Your task to perform on an android device: turn off improve location accuracy Image 0: 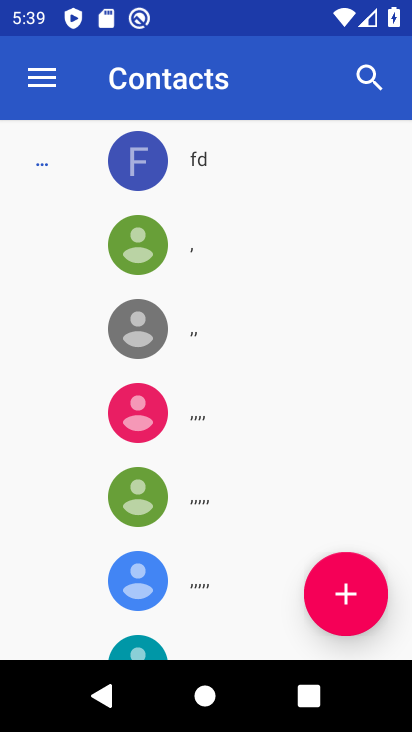
Step 0: press home button
Your task to perform on an android device: turn off improve location accuracy Image 1: 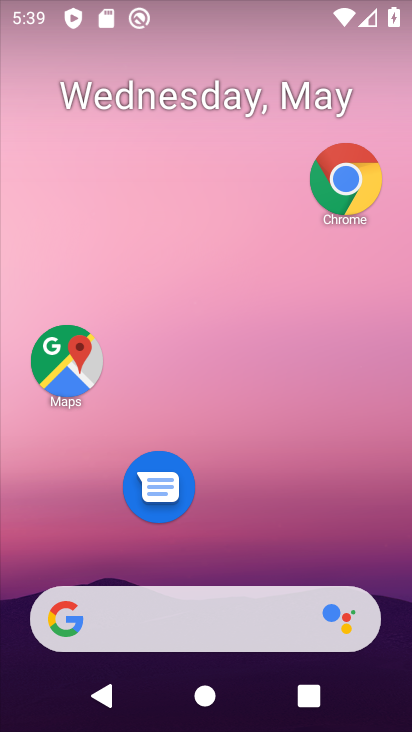
Step 1: drag from (199, 524) to (199, 88)
Your task to perform on an android device: turn off improve location accuracy Image 2: 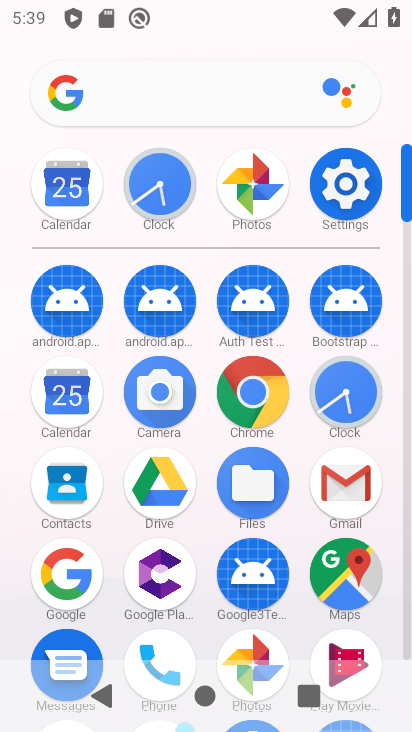
Step 2: click (355, 211)
Your task to perform on an android device: turn off improve location accuracy Image 3: 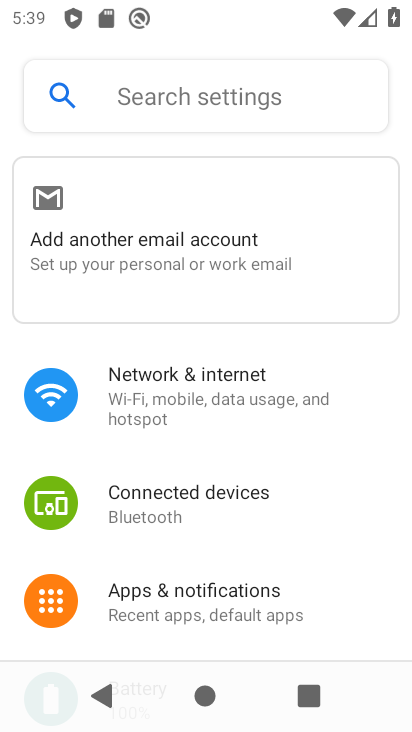
Step 3: drag from (194, 573) to (188, 15)
Your task to perform on an android device: turn off improve location accuracy Image 4: 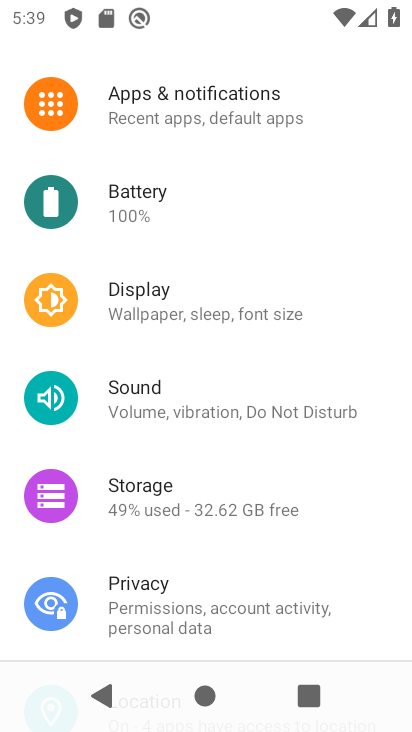
Step 4: drag from (137, 532) to (130, 160)
Your task to perform on an android device: turn off improve location accuracy Image 5: 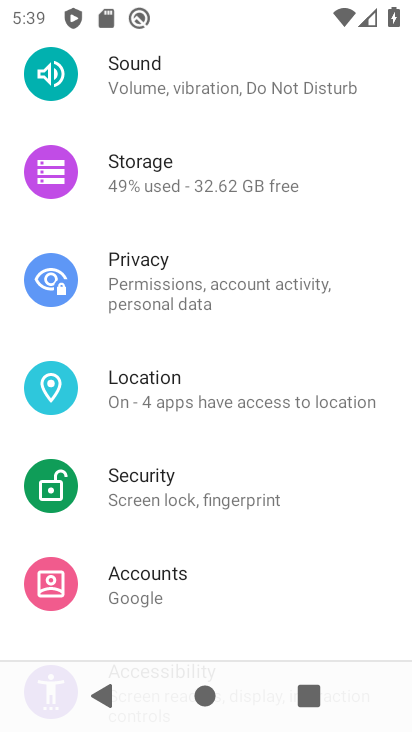
Step 5: click (140, 387)
Your task to perform on an android device: turn off improve location accuracy Image 6: 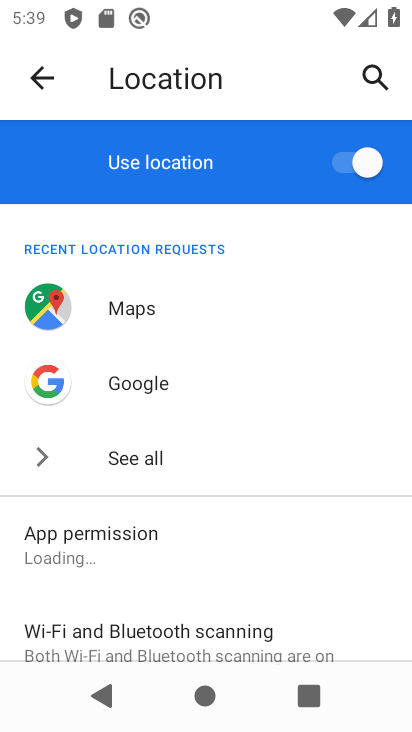
Step 6: drag from (108, 579) to (117, 255)
Your task to perform on an android device: turn off improve location accuracy Image 7: 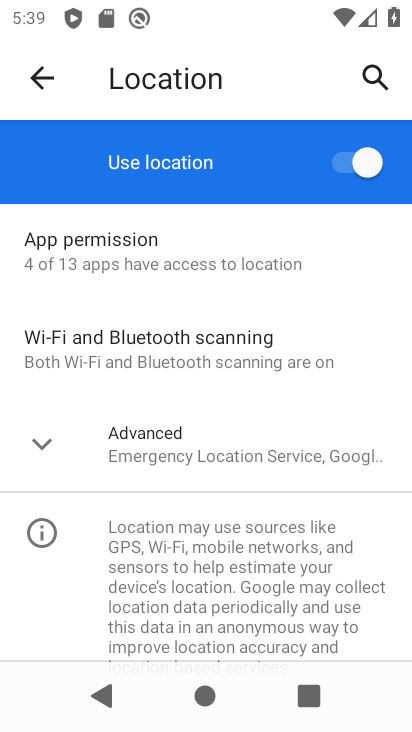
Step 7: click (121, 438)
Your task to perform on an android device: turn off improve location accuracy Image 8: 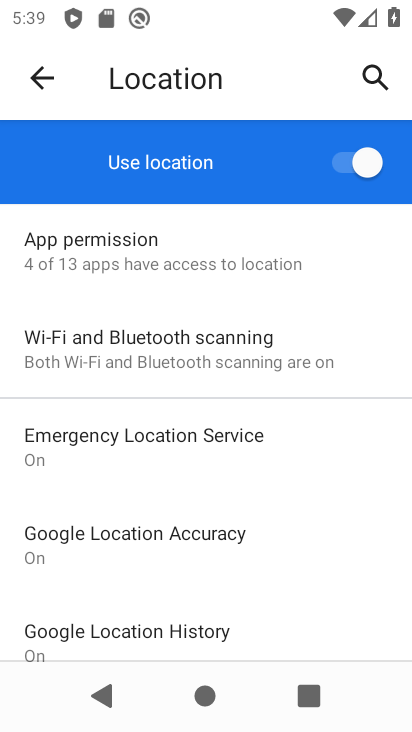
Step 8: click (120, 540)
Your task to perform on an android device: turn off improve location accuracy Image 9: 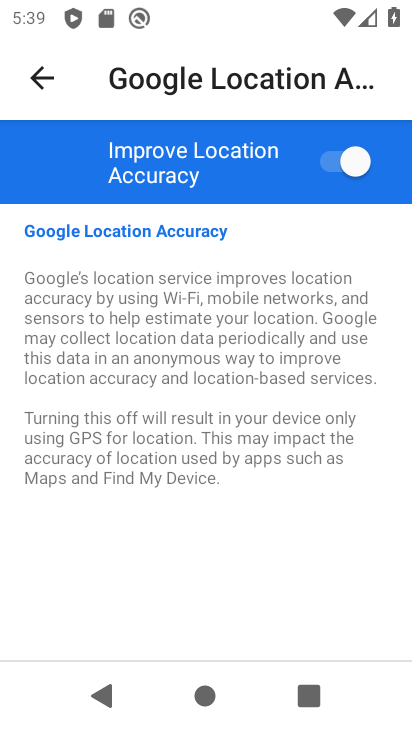
Step 9: click (330, 161)
Your task to perform on an android device: turn off improve location accuracy Image 10: 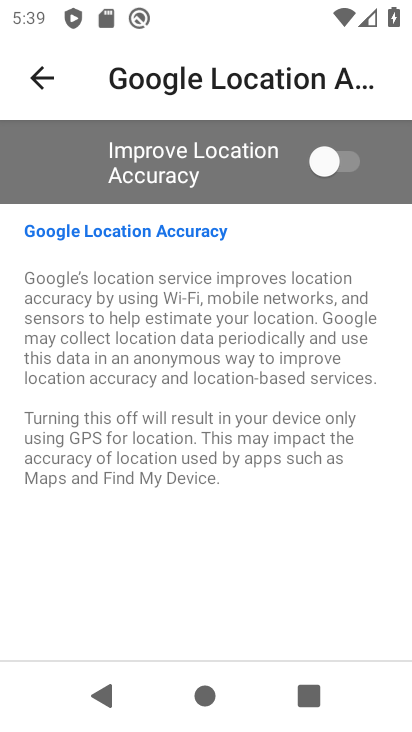
Step 10: task complete